Your task to perform on an android device: Open Android settings Image 0: 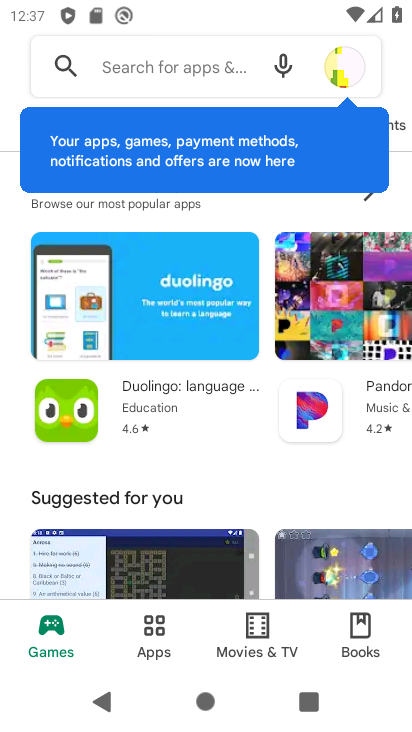
Step 0: press home button
Your task to perform on an android device: Open Android settings Image 1: 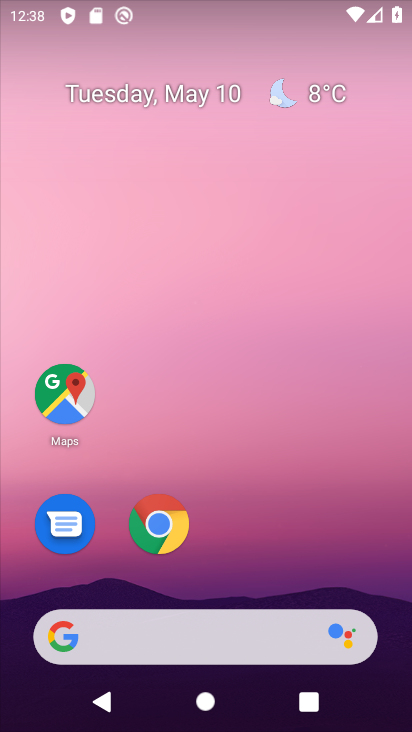
Step 1: drag from (270, 490) to (260, 2)
Your task to perform on an android device: Open Android settings Image 2: 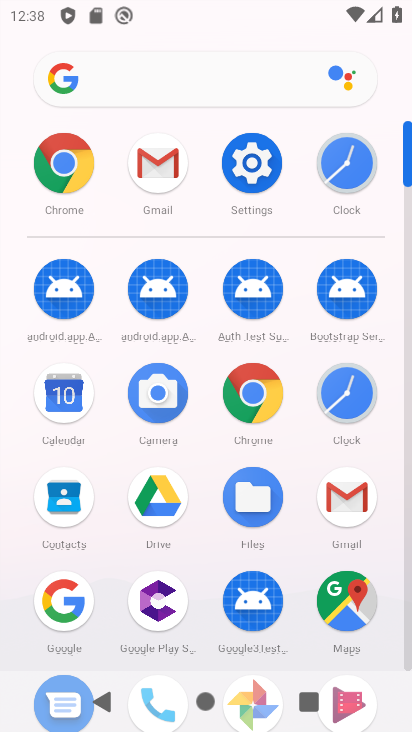
Step 2: click (249, 151)
Your task to perform on an android device: Open Android settings Image 3: 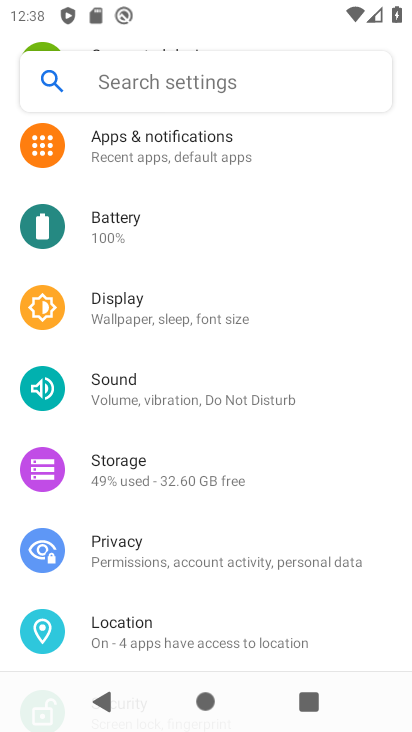
Step 3: drag from (262, 617) to (258, 62)
Your task to perform on an android device: Open Android settings Image 4: 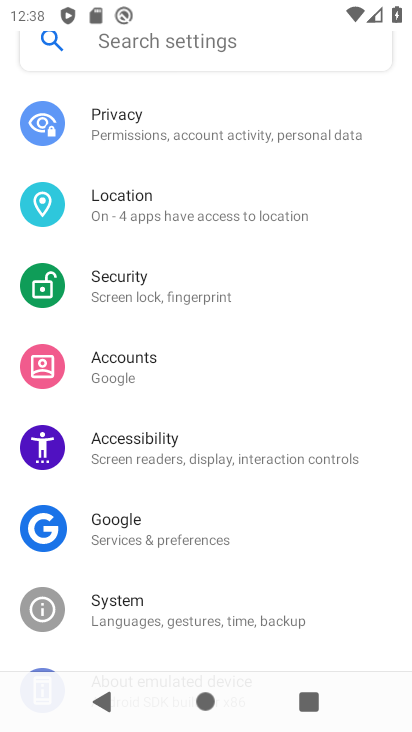
Step 4: drag from (271, 519) to (280, 245)
Your task to perform on an android device: Open Android settings Image 5: 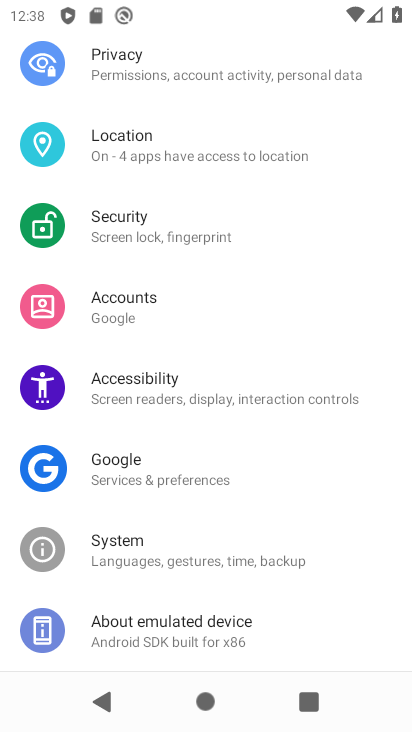
Step 5: click (216, 621)
Your task to perform on an android device: Open Android settings Image 6: 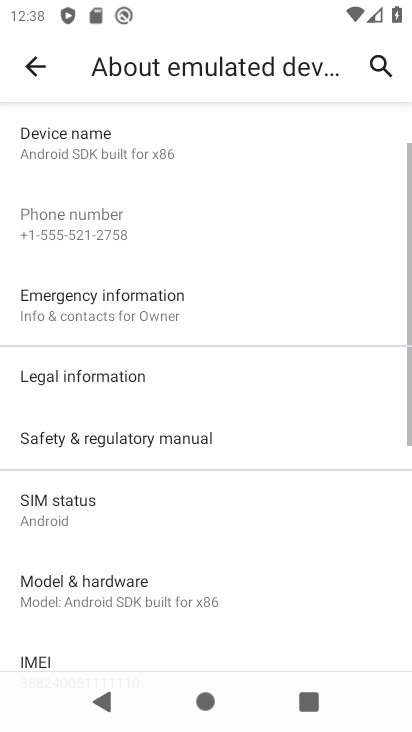
Step 6: task complete